Your task to perform on an android device: Open calendar and show me the third week of next month Image 0: 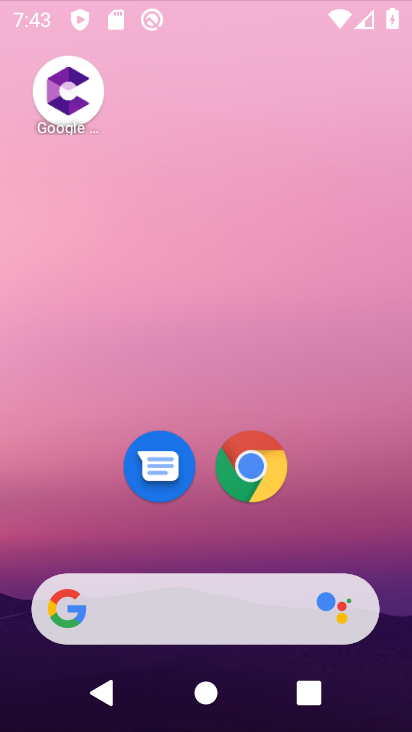
Step 0: drag from (332, 564) to (320, 184)
Your task to perform on an android device: Open calendar and show me the third week of next month Image 1: 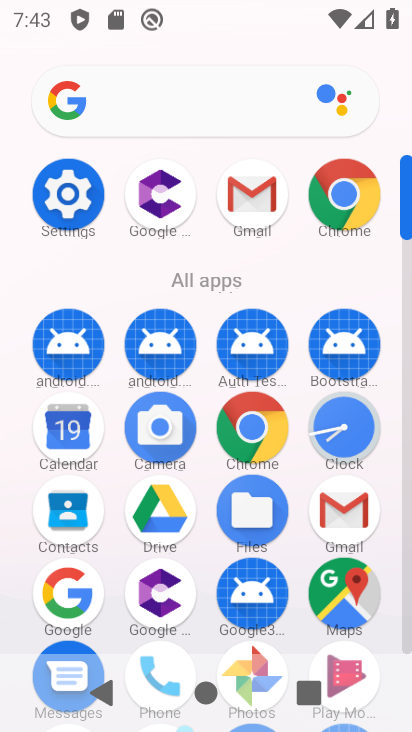
Step 1: click (65, 430)
Your task to perform on an android device: Open calendar and show me the third week of next month Image 2: 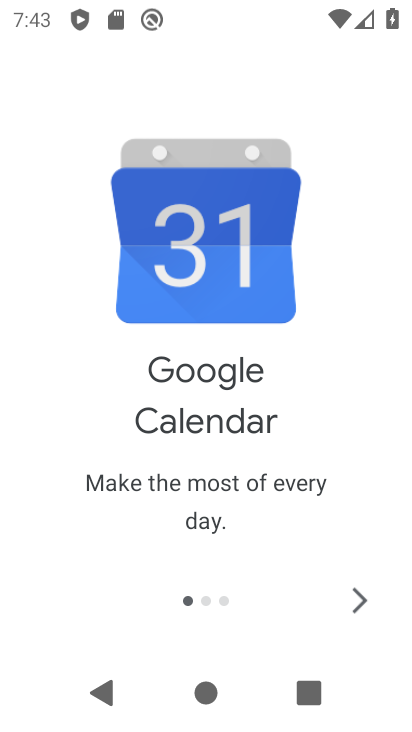
Step 2: click (360, 598)
Your task to perform on an android device: Open calendar and show me the third week of next month Image 3: 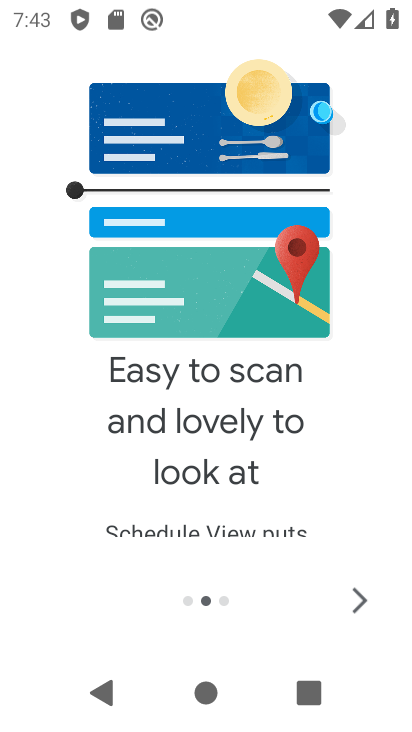
Step 3: click (360, 598)
Your task to perform on an android device: Open calendar and show me the third week of next month Image 4: 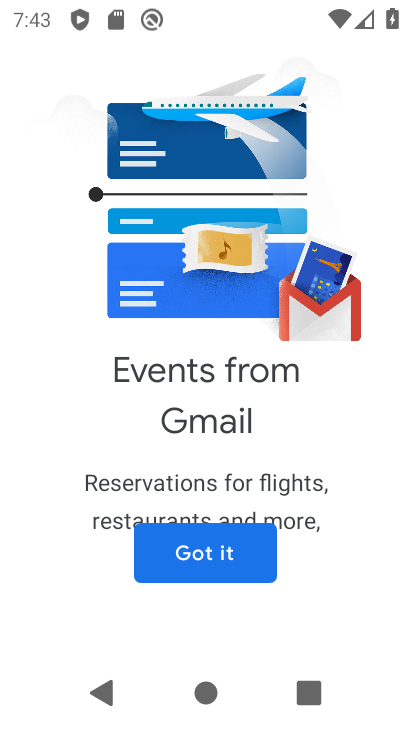
Step 4: click (201, 555)
Your task to perform on an android device: Open calendar and show me the third week of next month Image 5: 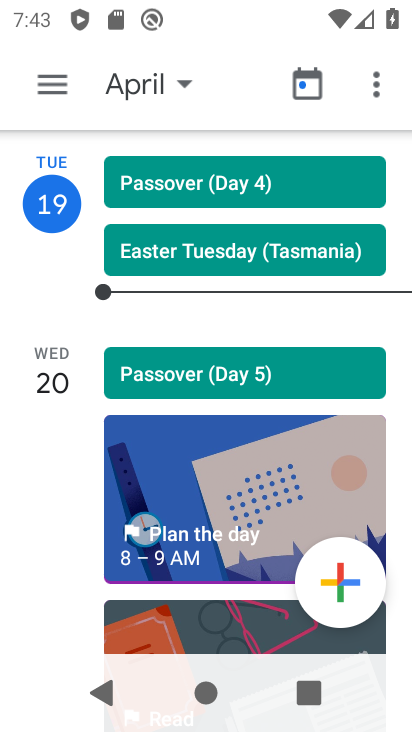
Step 5: click (40, 88)
Your task to perform on an android device: Open calendar and show me the third week of next month Image 6: 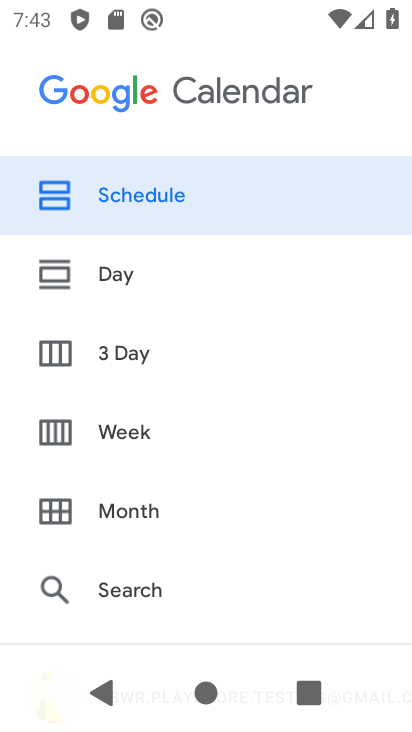
Step 6: click (125, 512)
Your task to perform on an android device: Open calendar and show me the third week of next month Image 7: 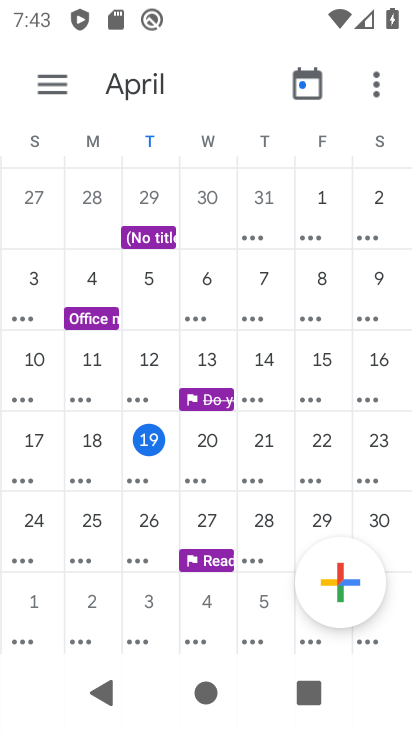
Step 7: task complete